Your task to perform on an android device: clear history in the chrome app Image 0: 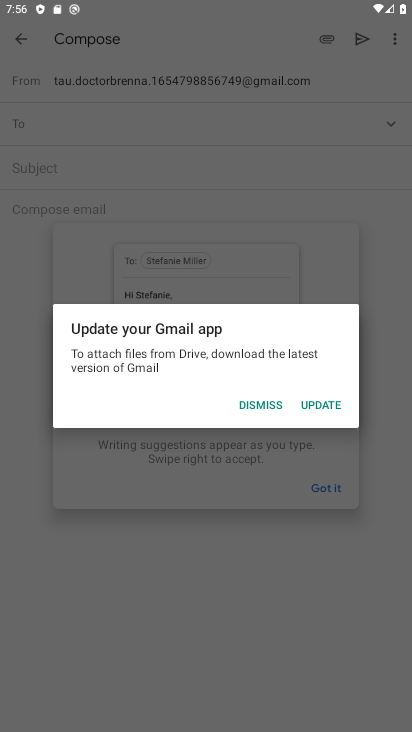
Step 0: task complete